Your task to perform on an android device: Open wifi settings Image 0: 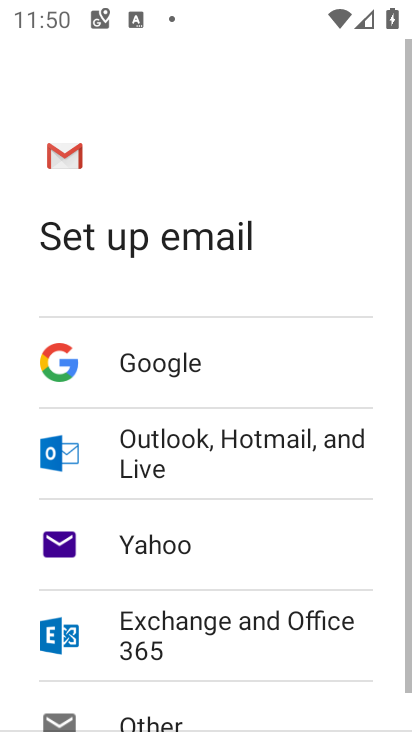
Step 0: press home button
Your task to perform on an android device: Open wifi settings Image 1: 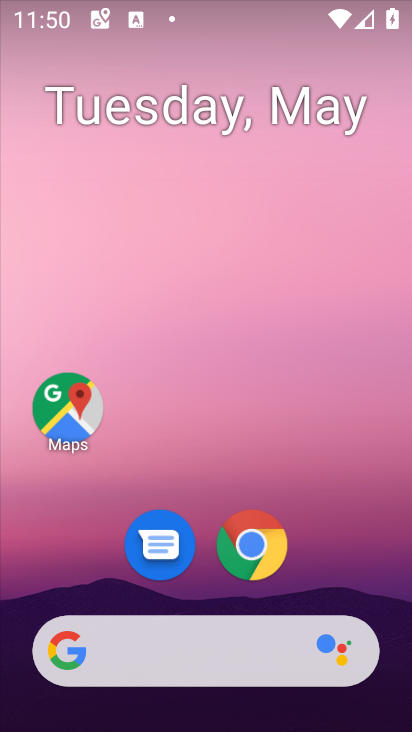
Step 1: drag from (207, 586) to (234, 213)
Your task to perform on an android device: Open wifi settings Image 2: 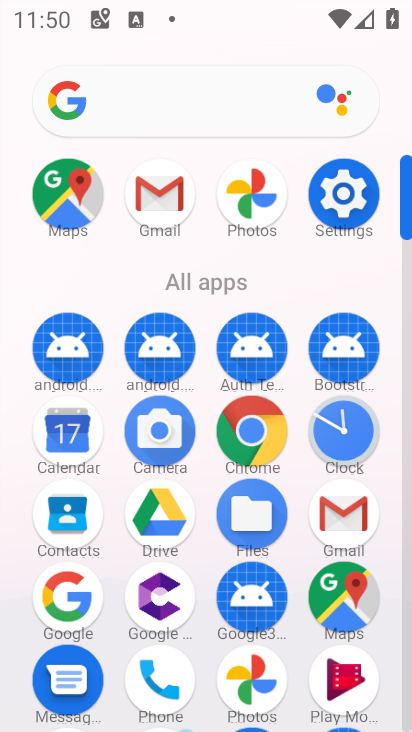
Step 2: click (344, 193)
Your task to perform on an android device: Open wifi settings Image 3: 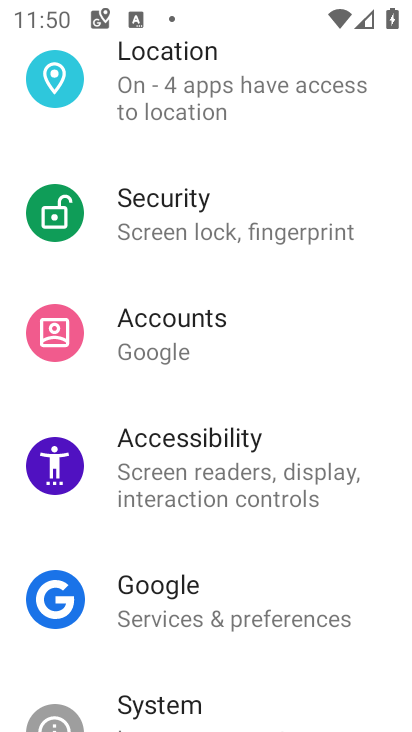
Step 3: drag from (265, 165) to (249, 650)
Your task to perform on an android device: Open wifi settings Image 4: 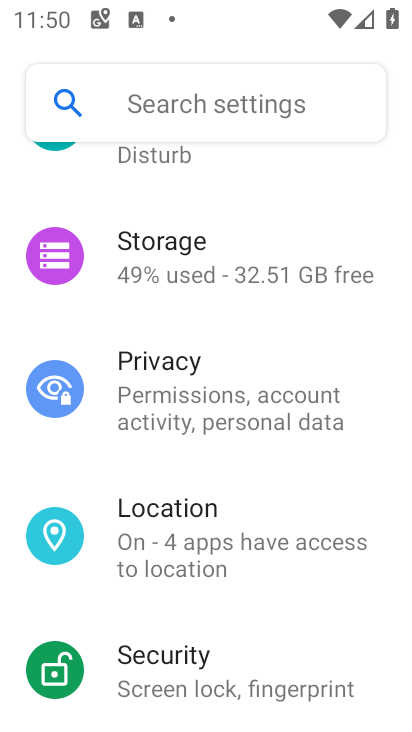
Step 4: drag from (257, 232) to (272, 587)
Your task to perform on an android device: Open wifi settings Image 5: 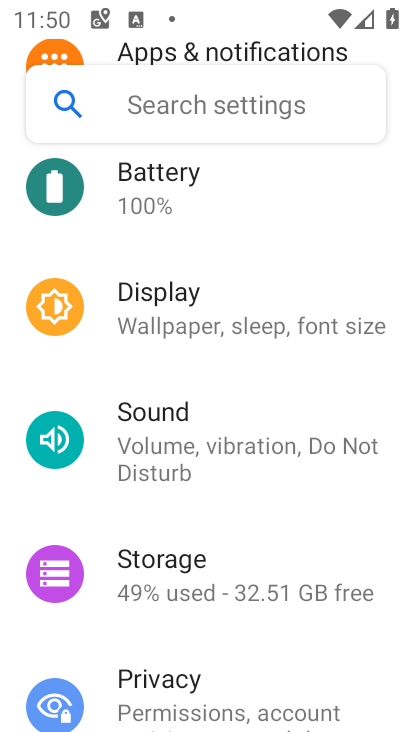
Step 5: drag from (268, 259) to (268, 625)
Your task to perform on an android device: Open wifi settings Image 6: 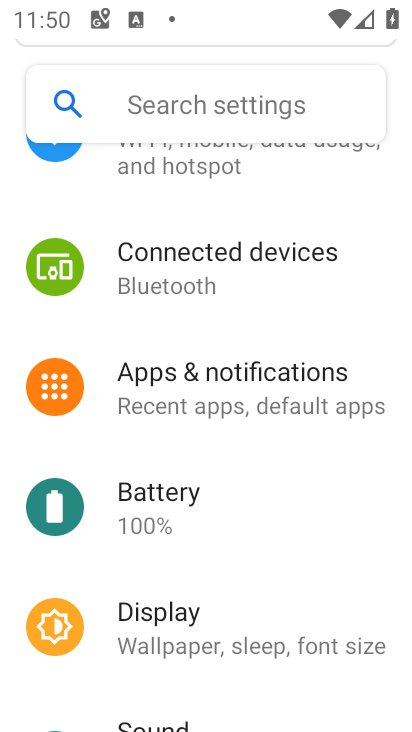
Step 6: drag from (221, 210) to (248, 628)
Your task to perform on an android device: Open wifi settings Image 7: 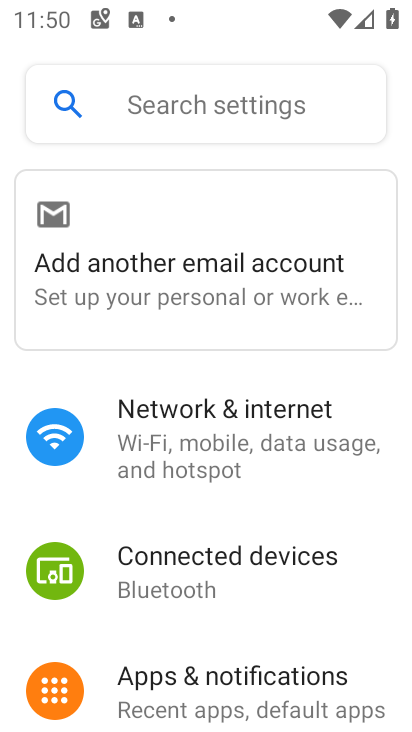
Step 7: click (211, 476)
Your task to perform on an android device: Open wifi settings Image 8: 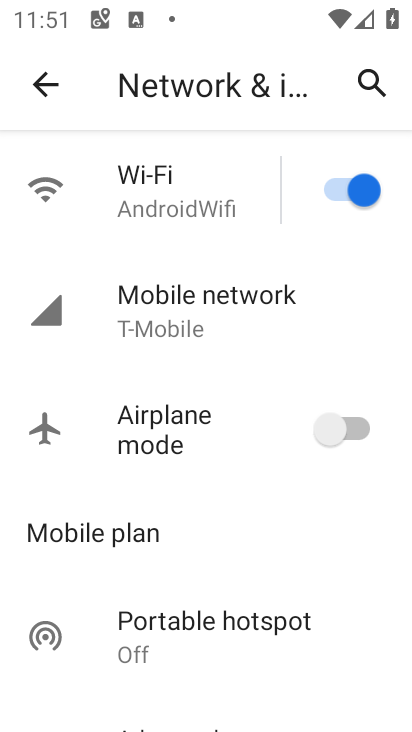
Step 8: task complete